Your task to perform on an android device: Search for good pizza restaurants on Maps Image 0: 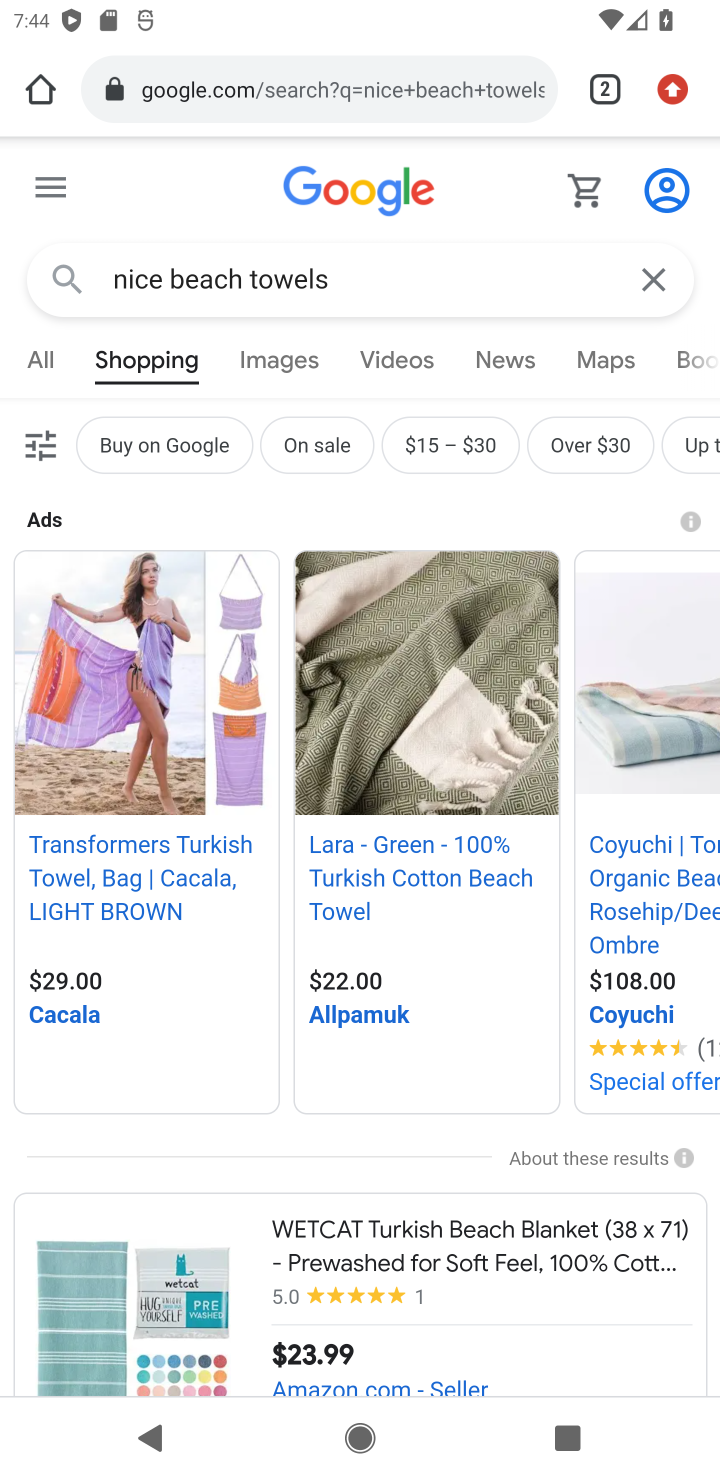
Step 0: press home button
Your task to perform on an android device: Search for good pizza restaurants on Maps Image 1: 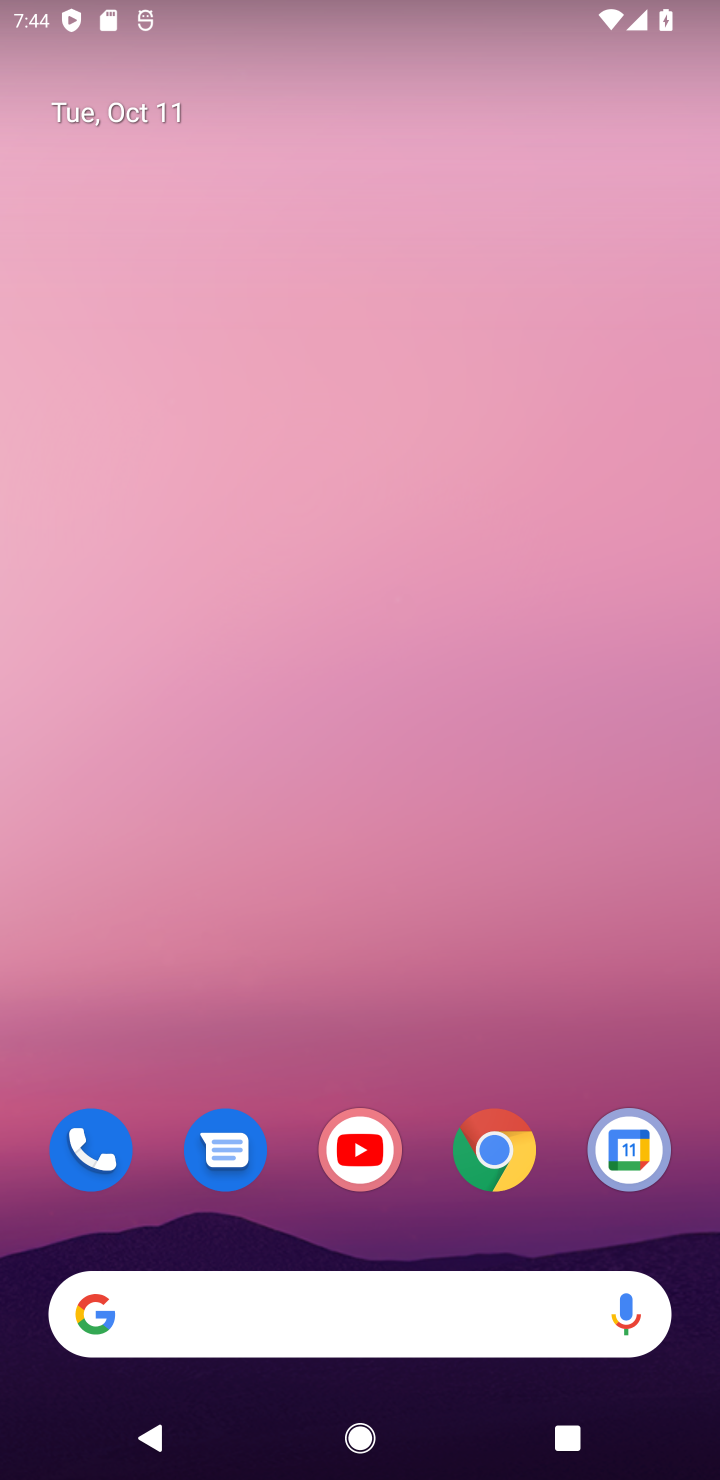
Step 1: drag from (569, 1109) to (609, 113)
Your task to perform on an android device: Search for good pizza restaurants on Maps Image 2: 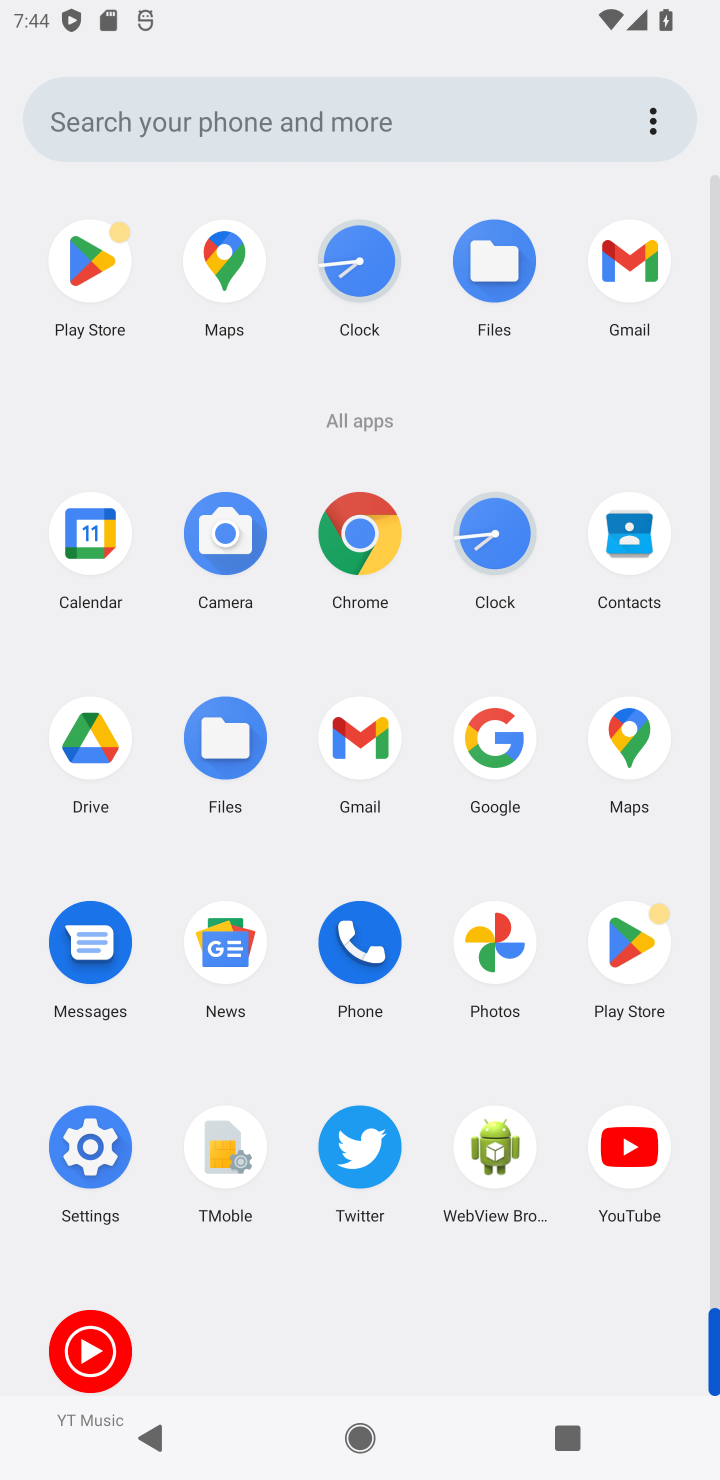
Step 2: click (229, 274)
Your task to perform on an android device: Search for good pizza restaurants on Maps Image 3: 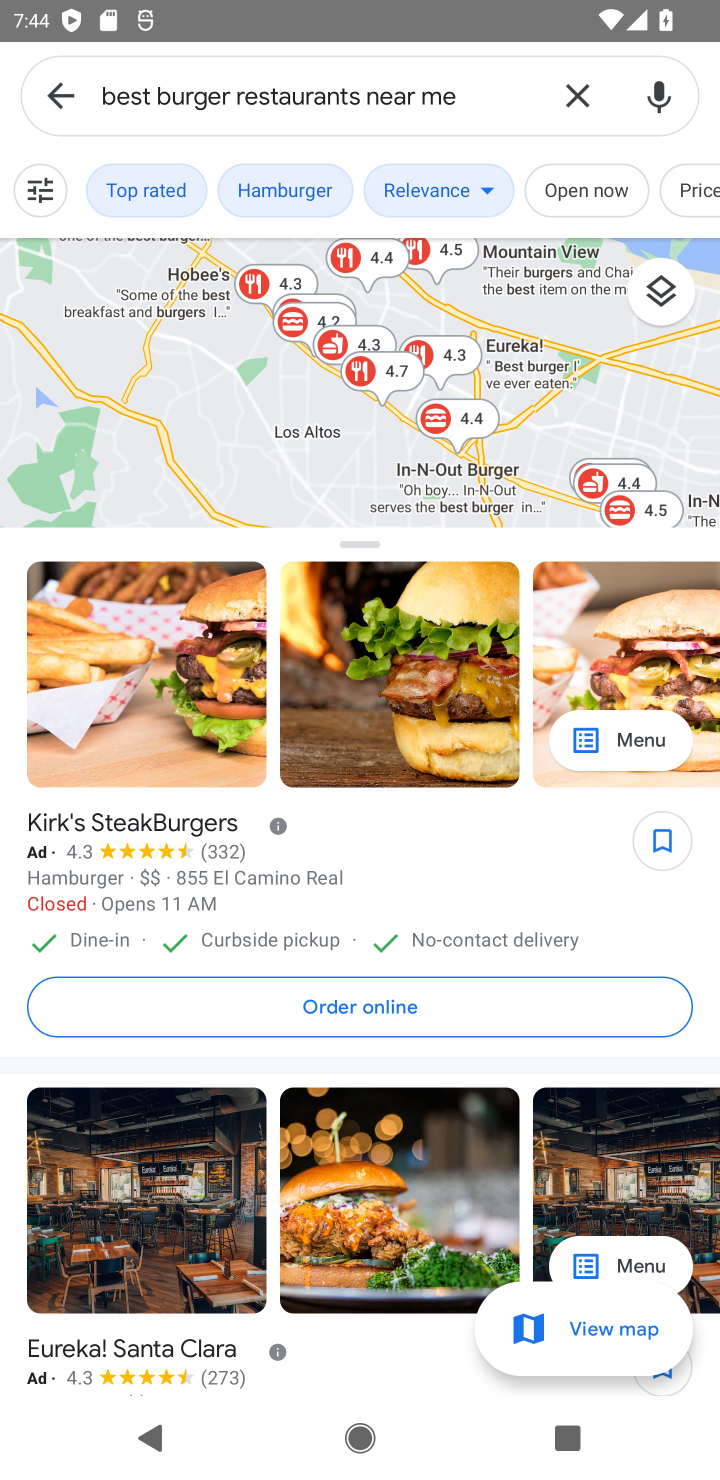
Step 3: click (578, 94)
Your task to perform on an android device: Search for good pizza restaurants on Maps Image 4: 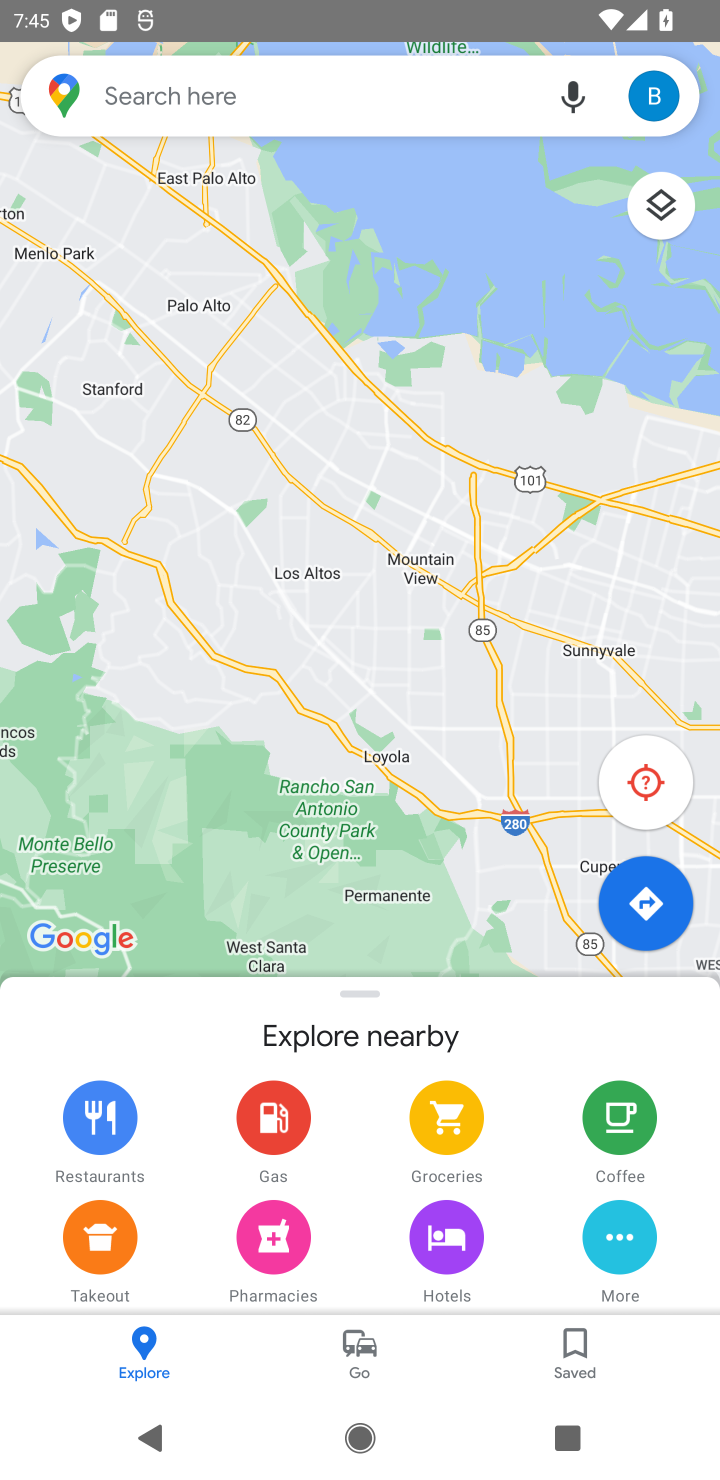
Step 4: click (274, 92)
Your task to perform on an android device: Search for good pizza restaurants on Maps Image 5: 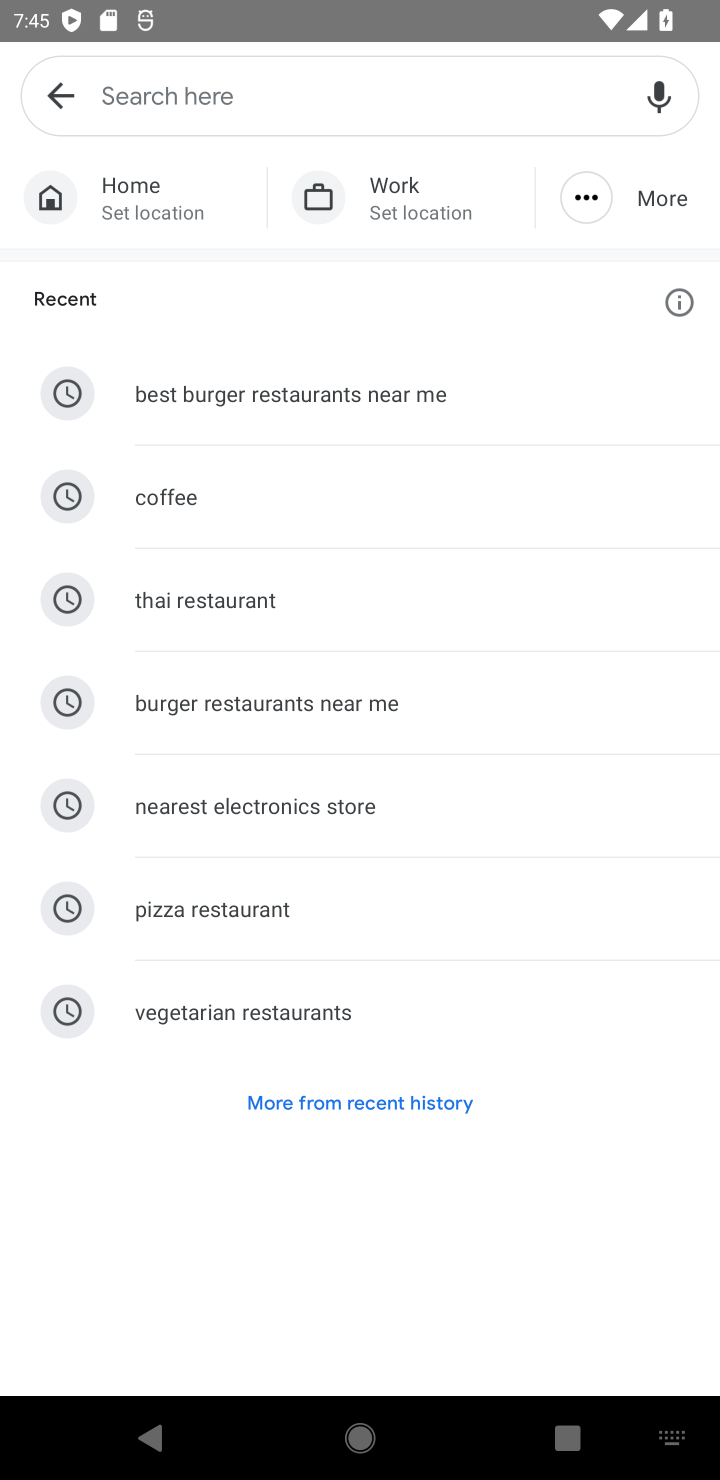
Step 5: type "good pizza restaurants"
Your task to perform on an android device: Search for good pizza restaurants on Maps Image 6: 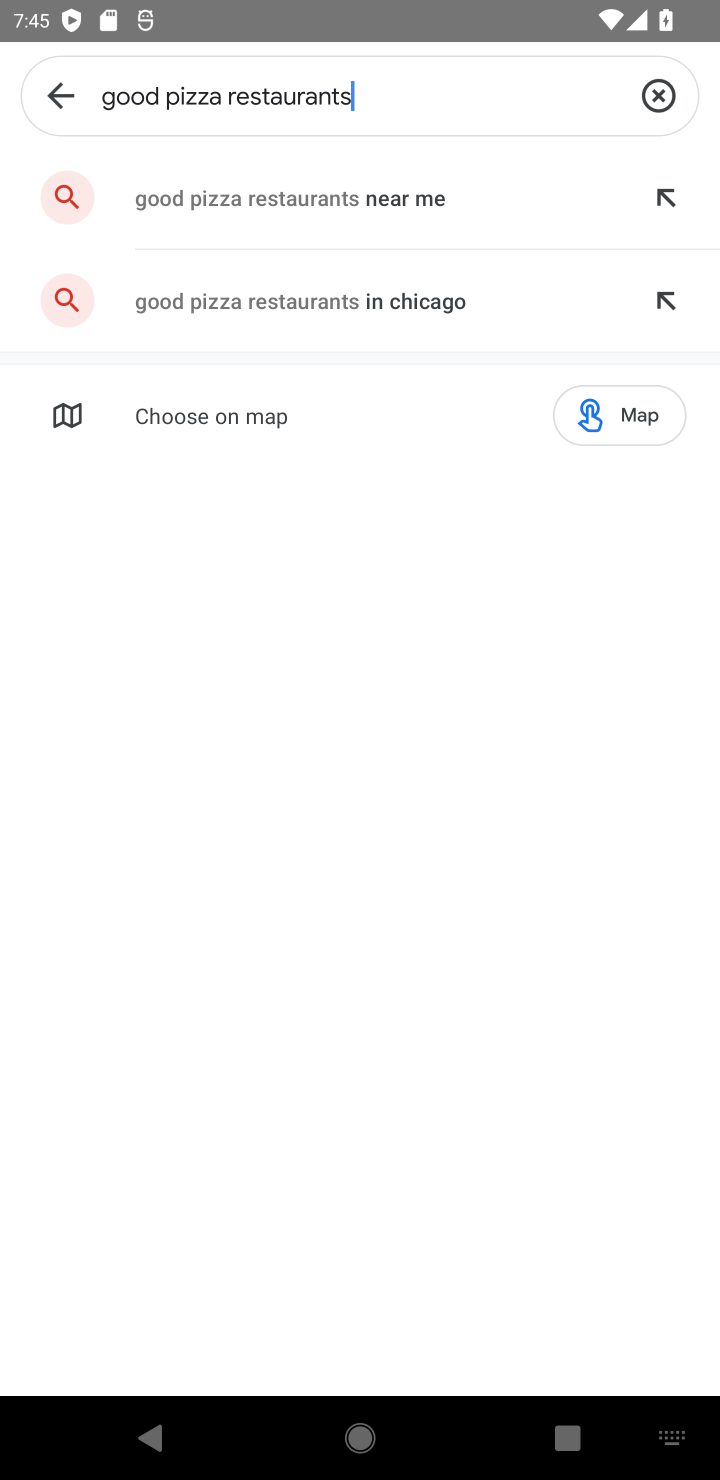
Step 6: click (252, 202)
Your task to perform on an android device: Search for good pizza restaurants on Maps Image 7: 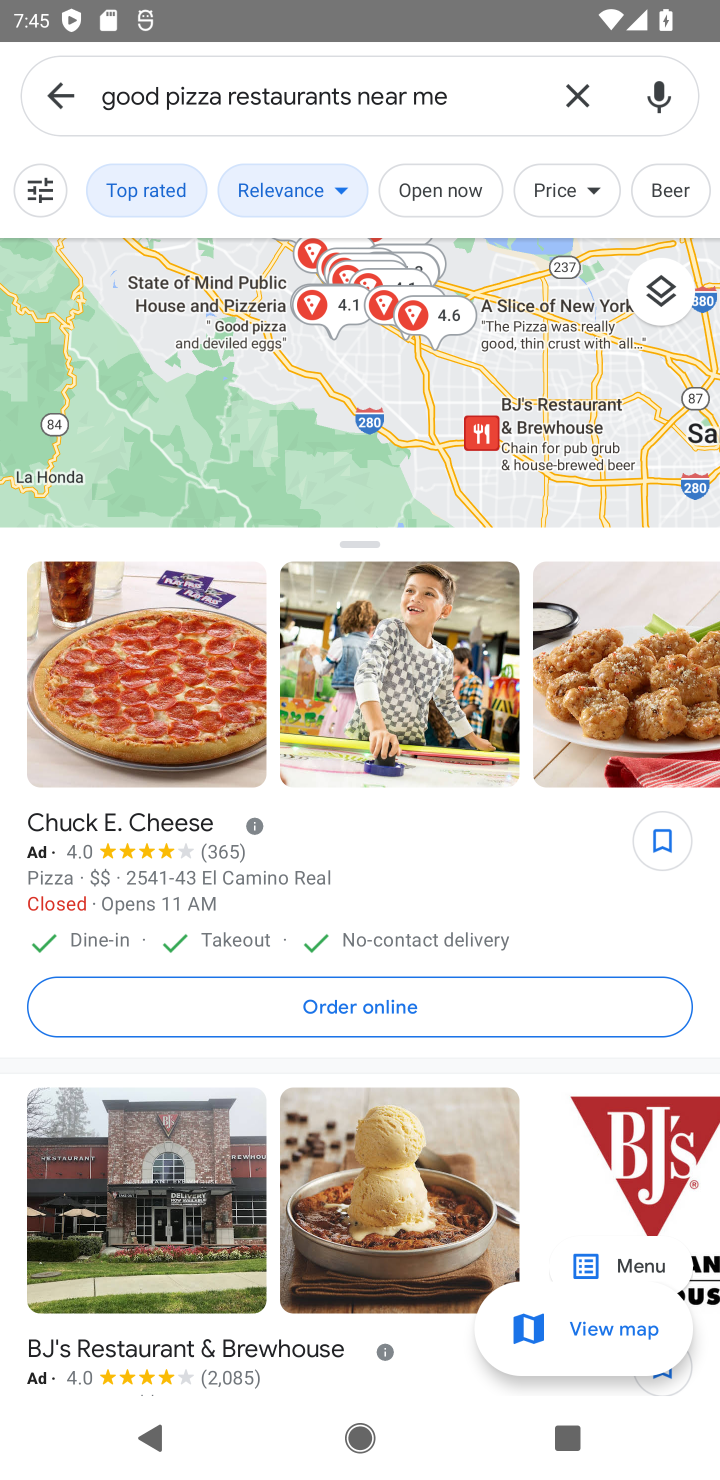
Step 7: task complete